Your task to perform on an android device: Open the Play Movies app and select the watchlist tab. Image 0: 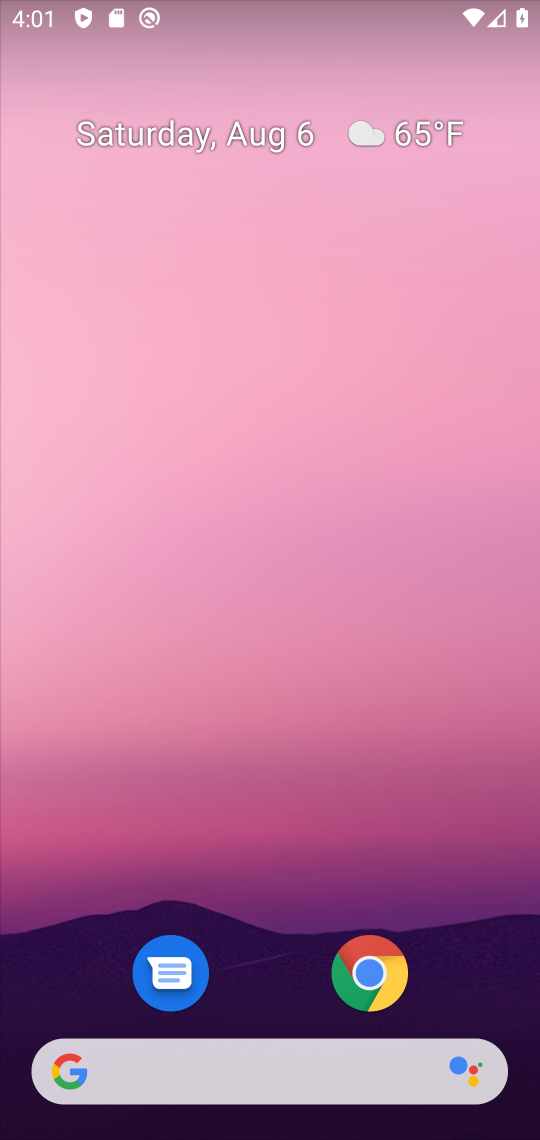
Step 0: drag from (241, 632) to (239, 127)
Your task to perform on an android device: Open the Play Movies app and select the watchlist tab. Image 1: 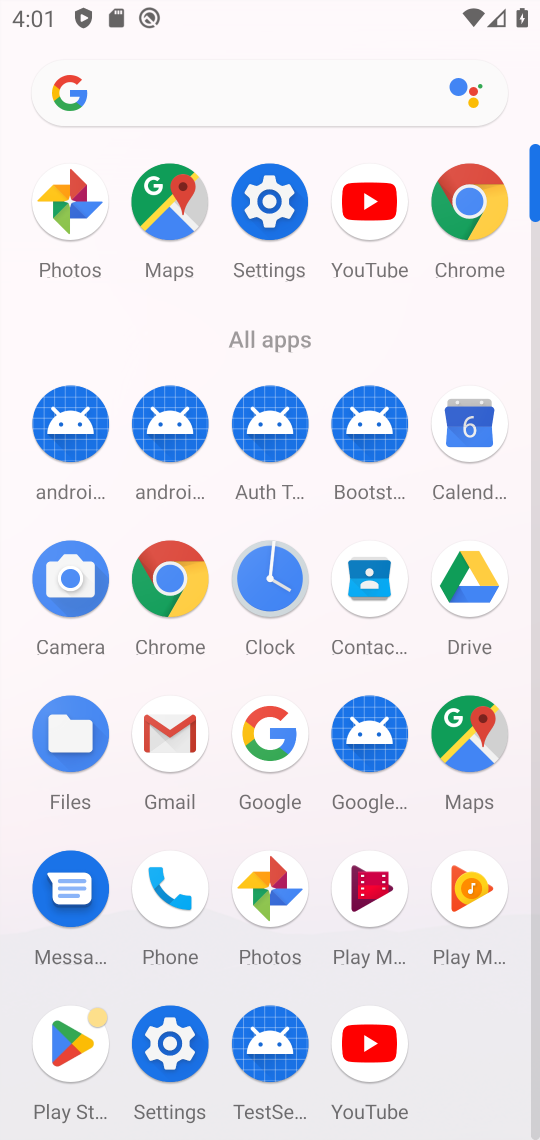
Step 1: click (370, 904)
Your task to perform on an android device: Open the Play Movies app and select the watchlist tab. Image 2: 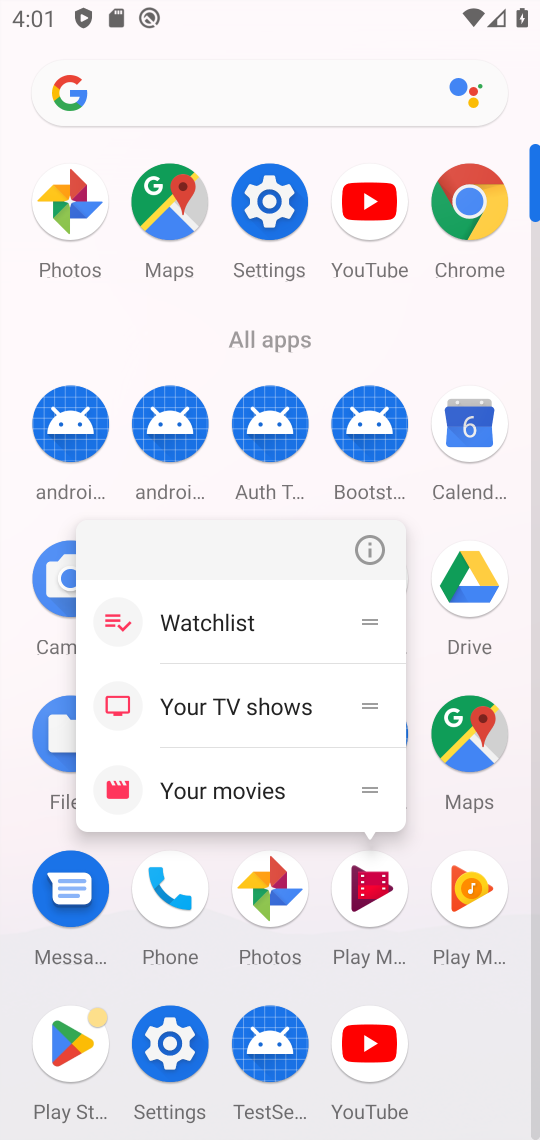
Step 2: click (374, 866)
Your task to perform on an android device: Open the Play Movies app and select the watchlist tab. Image 3: 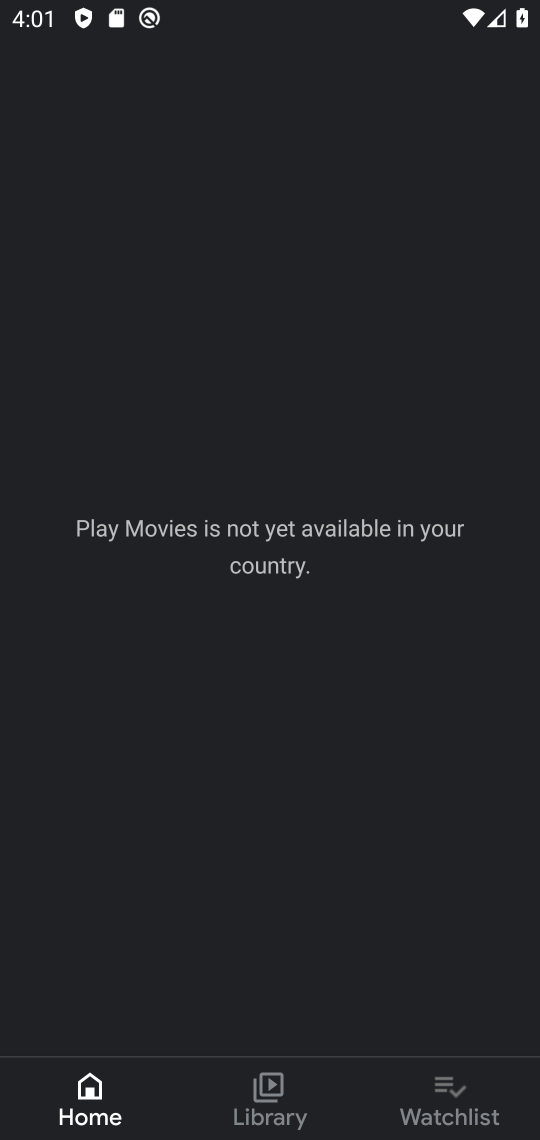
Step 3: click (436, 1094)
Your task to perform on an android device: Open the Play Movies app and select the watchlist tab. Image 4: 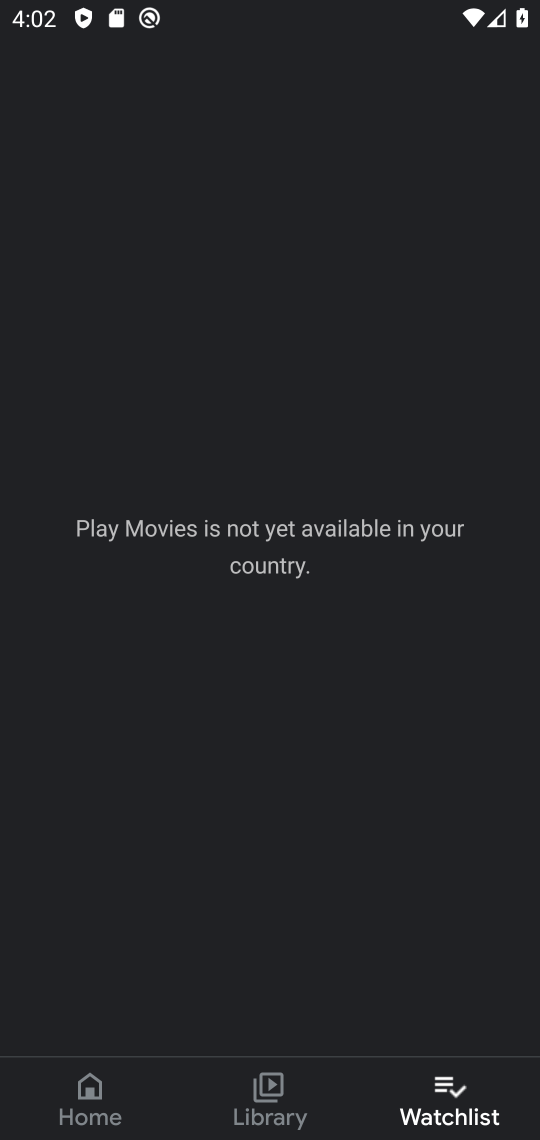
Step 4: task complete